Your task to perform on an android device: turn off javascript in the chrome app Image 0: 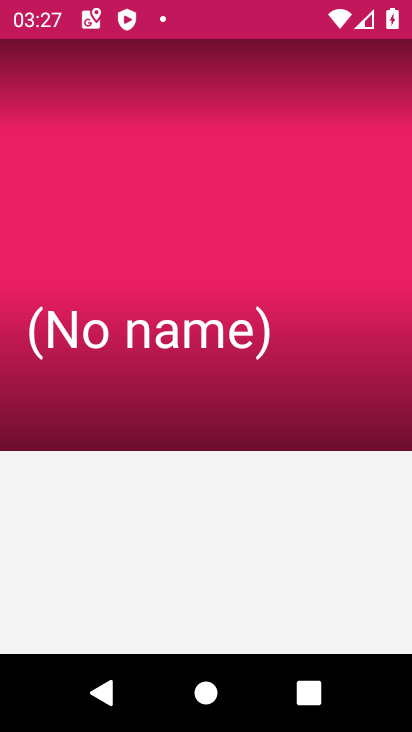
Step 0: press home button
Your task to perform on an android device: turn off javascript in the chrome app Image 1: 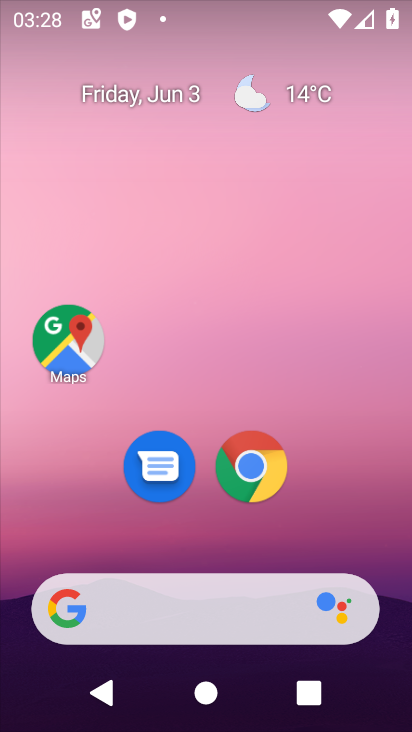
Step 1: click (246, 457)
Your task to perform on an android device: turn off javascript in the chrome app Image 2: 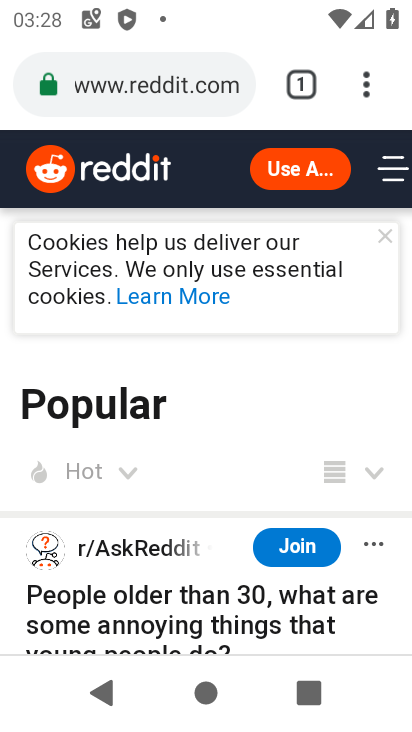
Step 2: click (367, 77)
Your task to perform on an android device: turn off javascript in the chrome app Image 3: 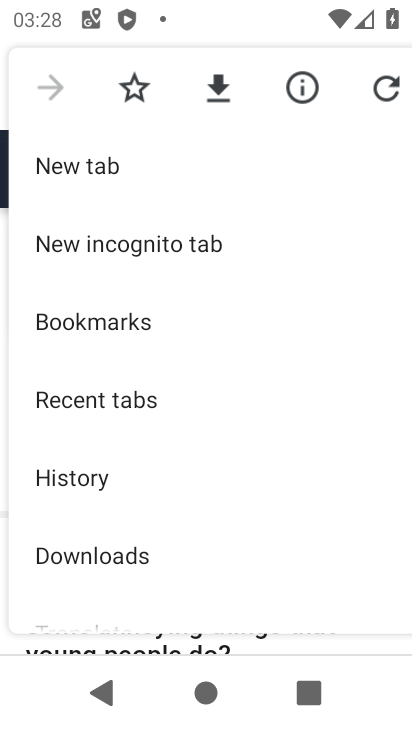
Step 3: drag from (249, 562) to (247, 113)
Your task to perform on an android device: turn off javascript in the chrome app Image 4: 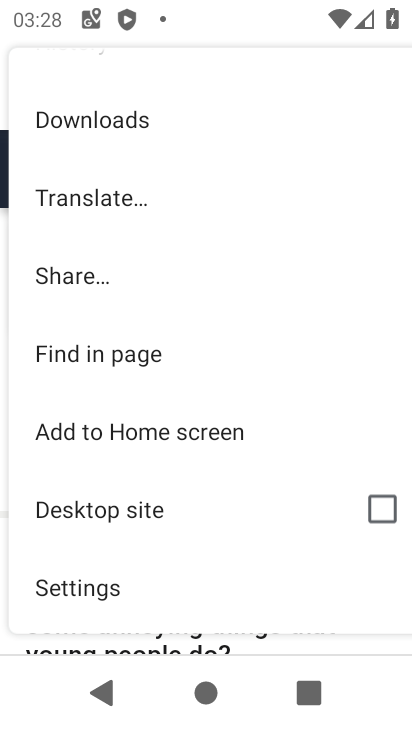
Step 4: click (149, 577)
Your task to perform on an android device: turn off javascript in the chrome app Image 5: 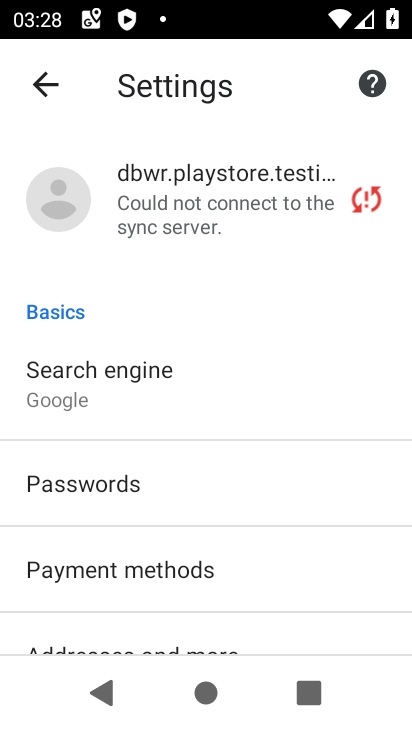
Step 5: drag from (282, 613) to (281, 147)
Your task to perform on an android device: turn off javascript in the chrome app Image 6: 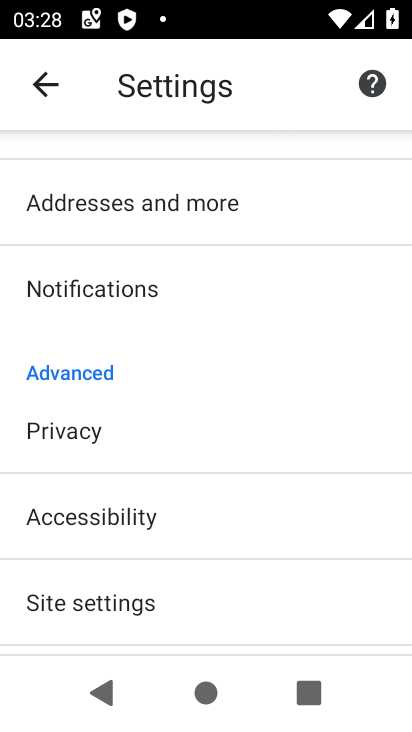
Step 6: click (174, 604)
Your task to perform on an android device: turn off javascript in the chrome app Image 7: 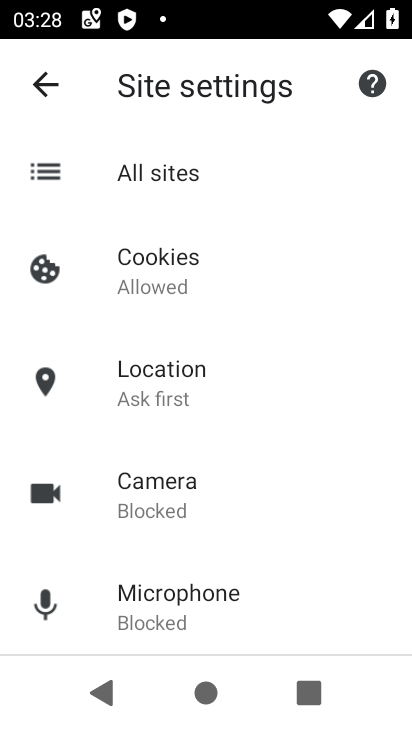
Step 7: drag from (236, 599) to (251, 112)
Your task to perform on an android device: turn off javascript in the chrome app Image 8: 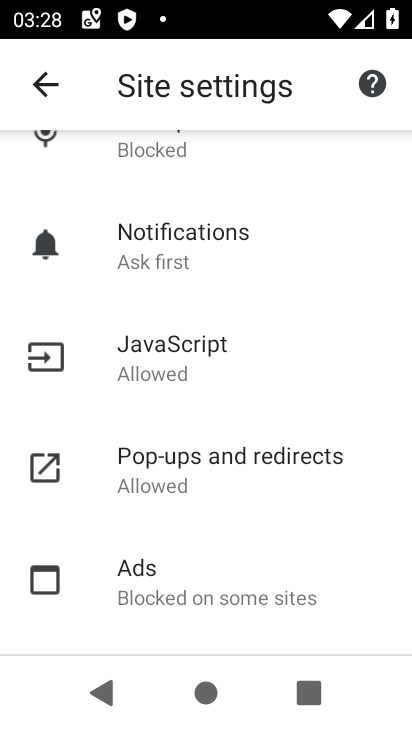
Step 8: click (187, 342)
Your task to perform on an android device: turn off javascript in the chrome app Image 9: 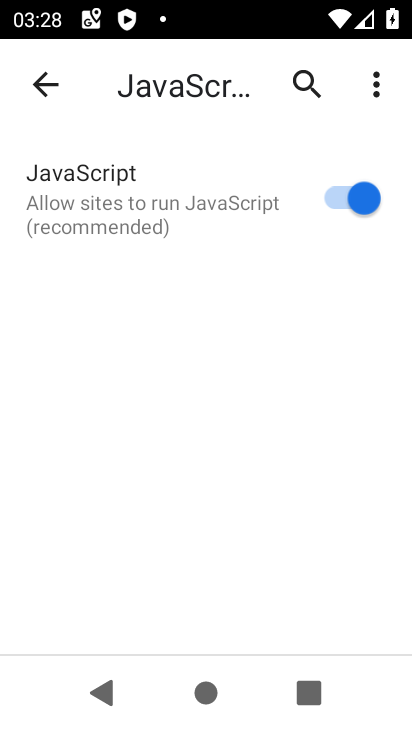
Step 9: click (342, 194)
Your task to perform on an android device: turn off javascript in the chrome app Image 10: 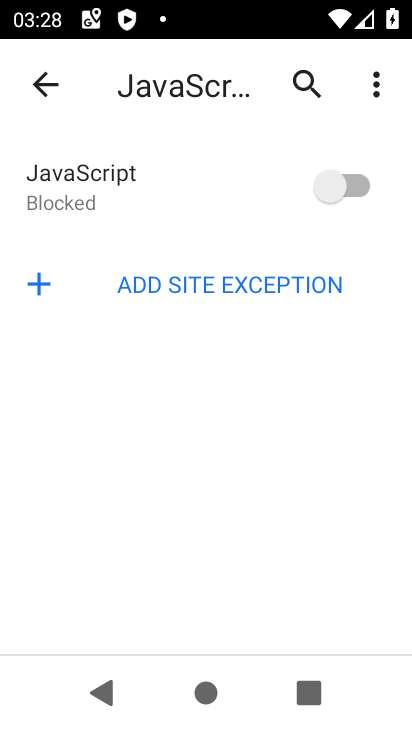
Step 10: task complete